Your task to perform on an android device: Show me popular games on the Play Store Image 0: 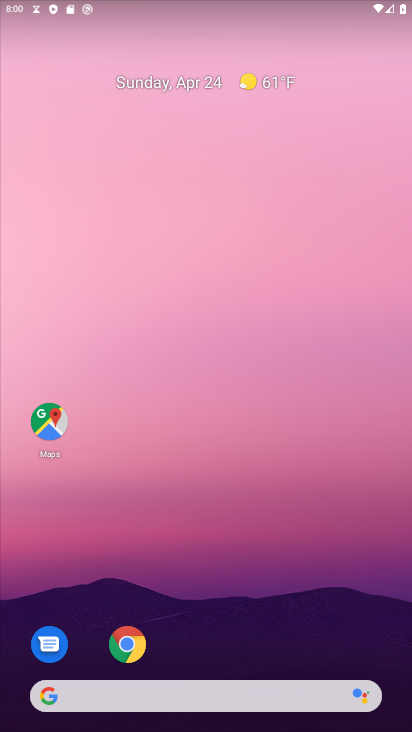
Step 0: drag from (170, 679) to (177, 124)
Your task to perform on an android device: Show me popular games on the Play Store Image 1: 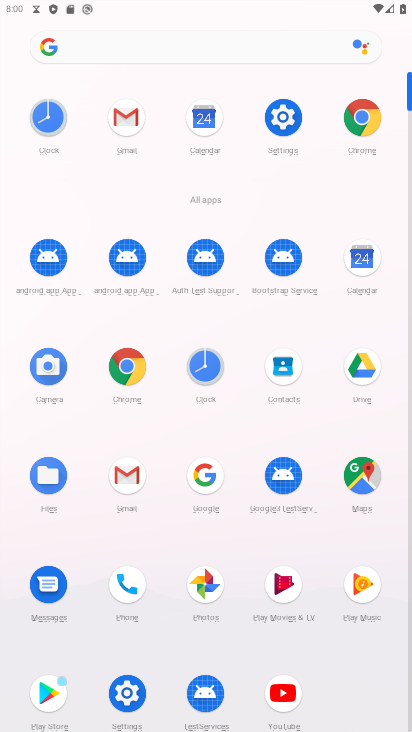
Step 1: click (51, 703)
Your task to perform on an android device: Show me popular games on the Play Store Image 2: 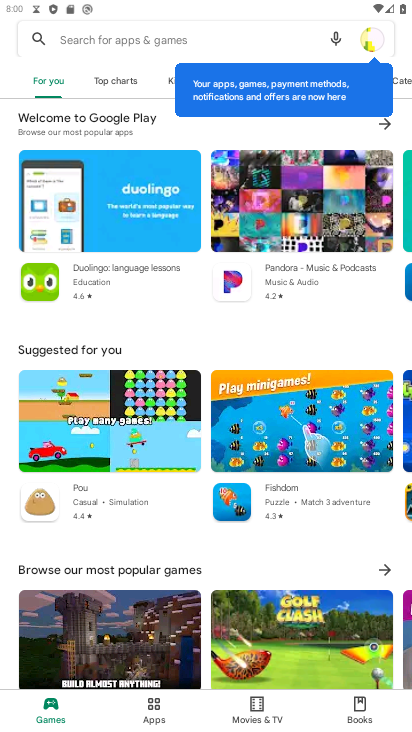
Step 2: click (383, 571)
Your task to perform on an android device: Show me popular games on the Play Store Image 3: 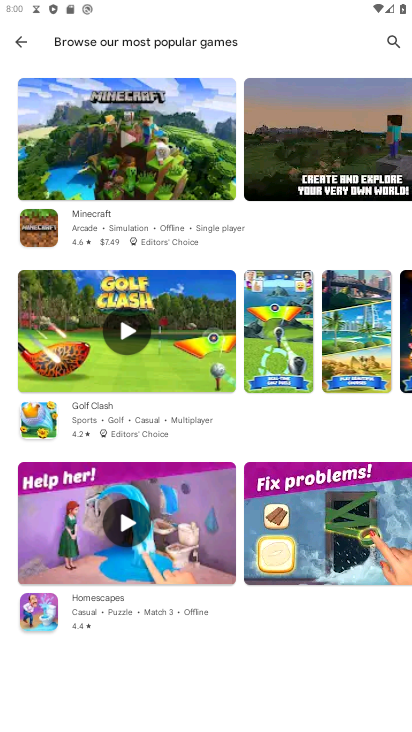
Step 3: task complete